Your task to perform on an android device: remove spam from my inbox in the gmail app Image 0: 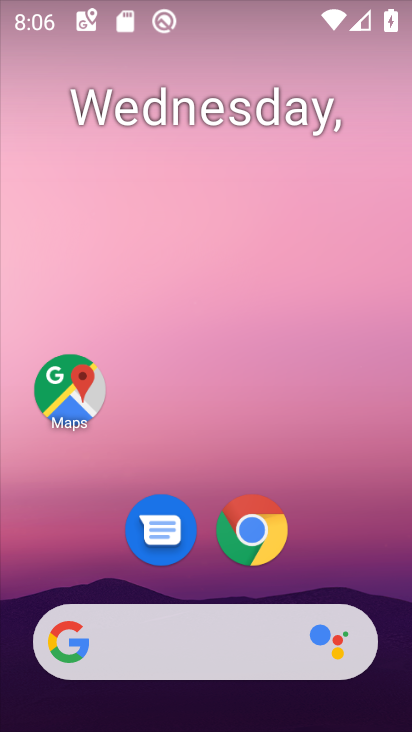
Step 0: drag from (395, 637) to (271, 103)
Your task to perform on an android device: remove spam from my inbox in the gmail app Image 1: 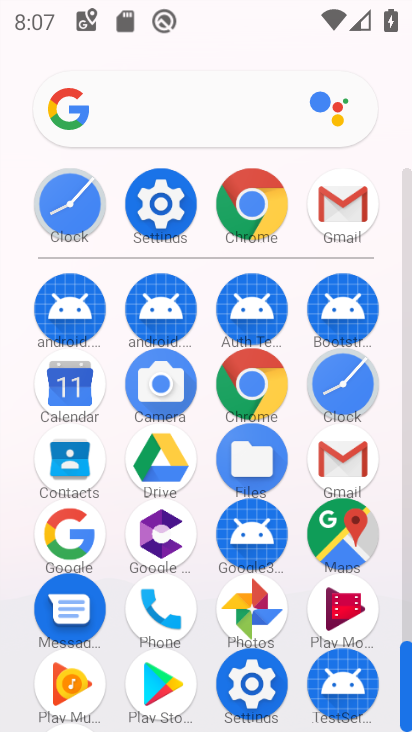
Step 1: click (340, 470)
Your task to perform on an android device: remove spam from my inbox in the gmail app Image 2: 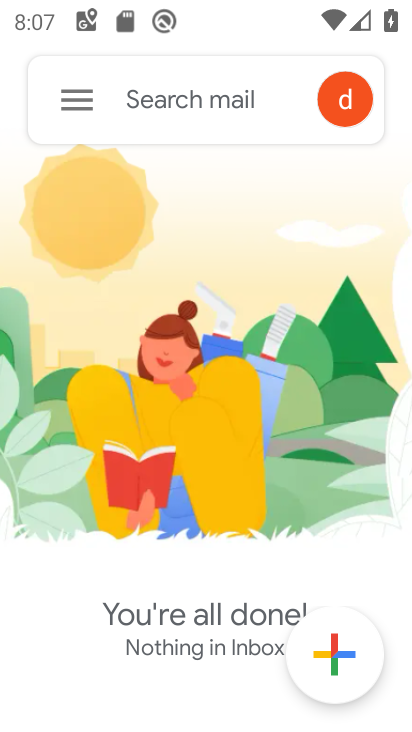
Step 2: click (85, 106)
Your task to perform on an android device: remove spam from my inbox in the gmail app Image 3: 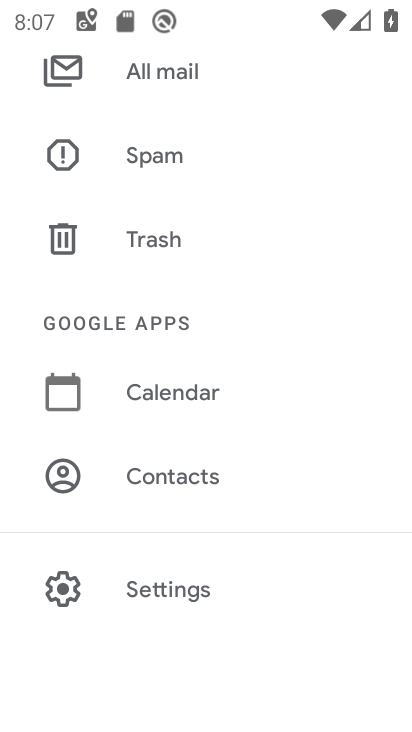
Step 3: click (186, 166)
Your task to perform on an android device: remove spam from my inbox in the gmail app Image 4: 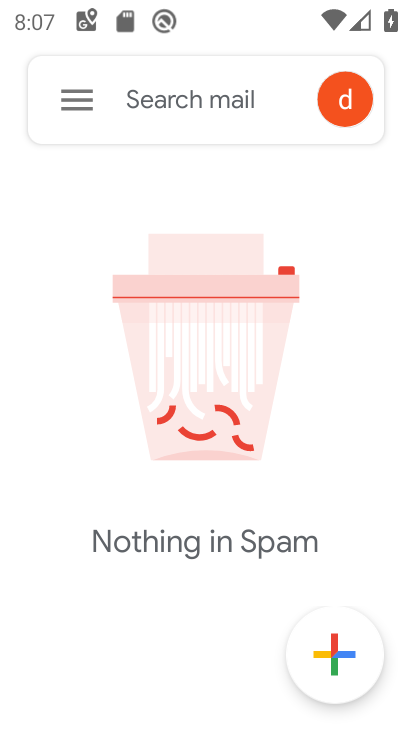
Step 4: task complete